Your task to perform on an android device: move an email to a new category in the gmail app Image 0: 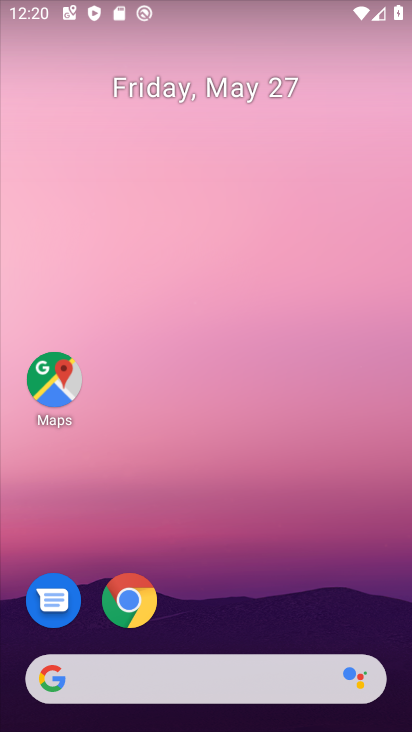
Step 0: drag from (272, 550) to (183, 55)
Your task to perform on an android device: move an email to a new category in the gmail app Image 1: 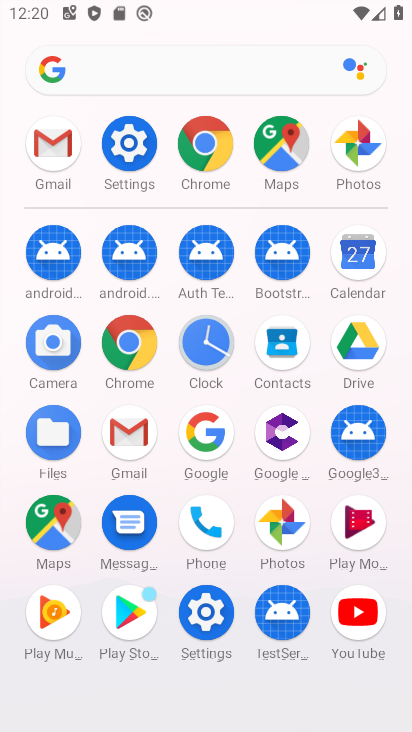
Step 1: drag from (3, 579) to (0, 236)
Your task to perform on an android device: move an email to a new category in the gmail app Image 2: 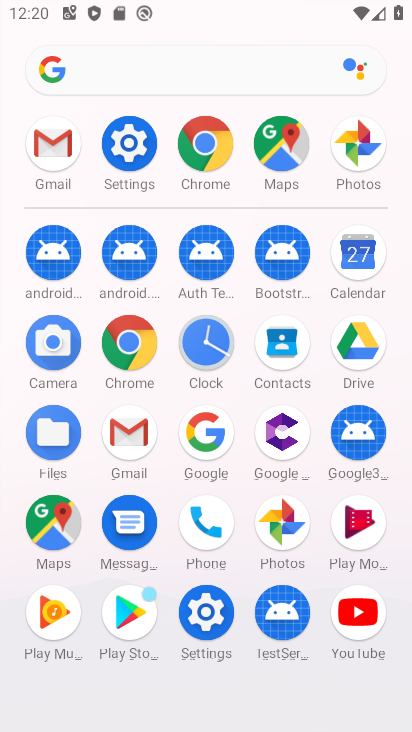
Step 2: click (127, 429)
Your task to perform on an android device: move an email to a new category in the gmail app Image 3: 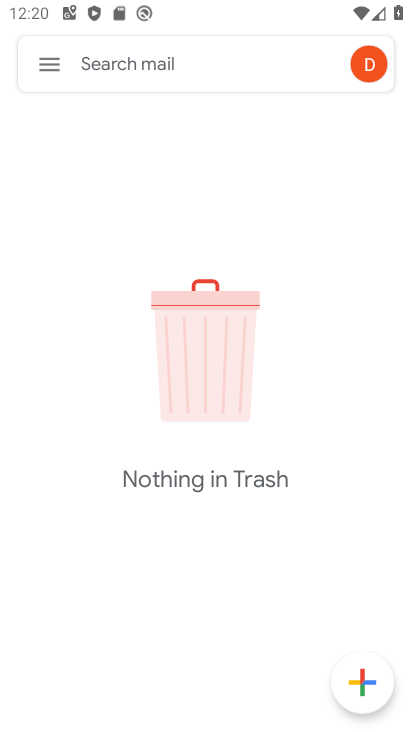
Step 3: click (46, 63)
Your task to perform on an android device: move an email to a new category in the gmail app Image 4: 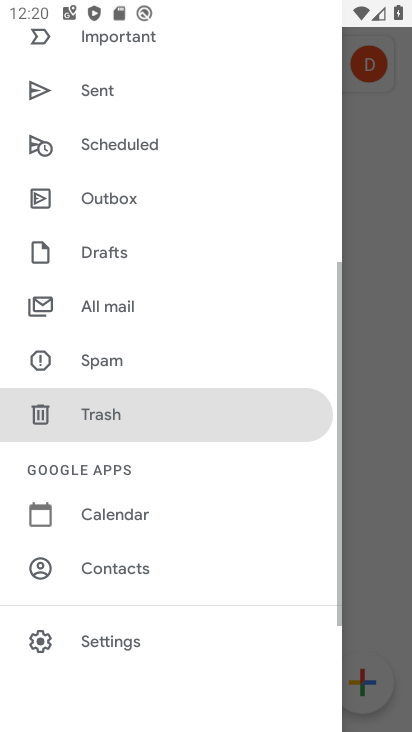
Step 4: click (119, 303)
Your task to perform on an android device: move an email to a new category in the gmail app Image 5: 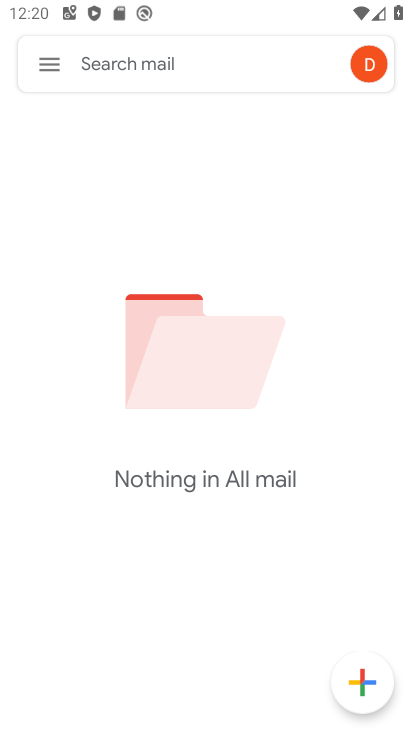
Step 5: click (62, 56)
Your task to perform on an android device: move an email to a new category in the gmail app Image 6: 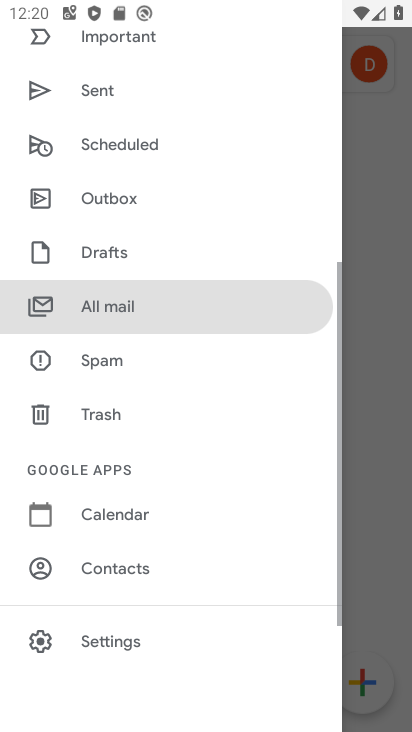
Step 6: drag from (251, 170) to (271, 571)
Your task to perform on an android device: move an email to a new category in the gmail app Image 7: 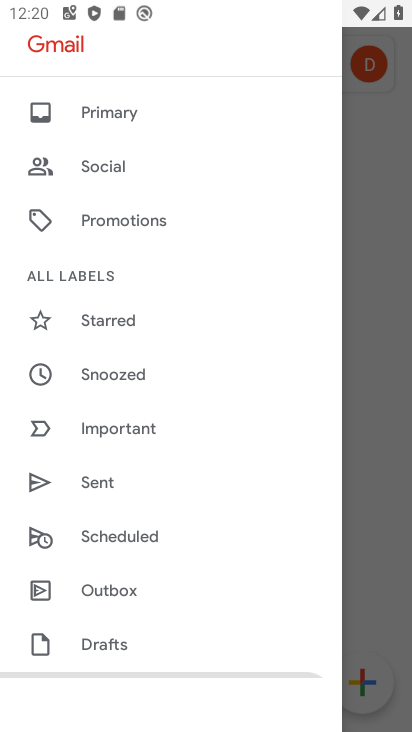
Step 7: click (170, 107)
Your task to perform on an android device: move an email to a new category in the gmail app Image 8: 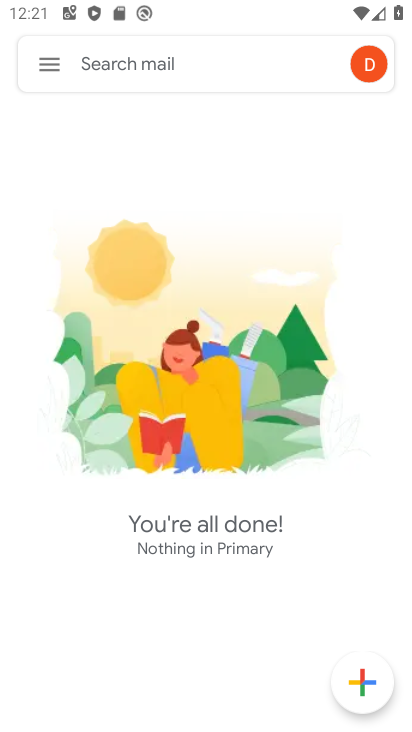
Step 8: task complete